Your task to perform on an android device: Open Google Image 0: 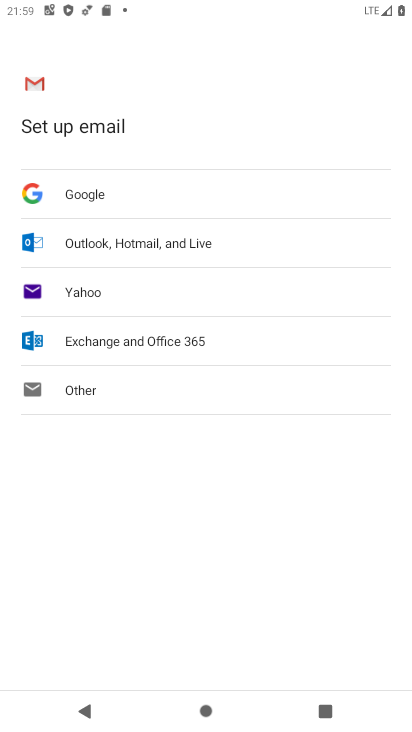
Step 0: press back button
Your task to perform on an android device: Open Google Image 1: 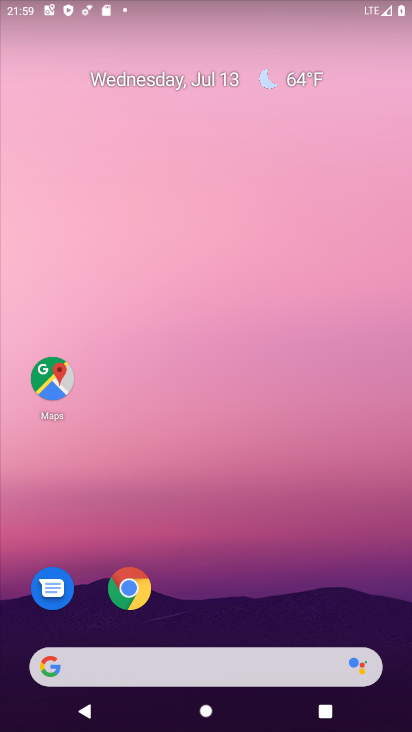
Step 1: drag from (241, 584) to (325, 13)
Your task to perform on an android device: Open Google Image 2: 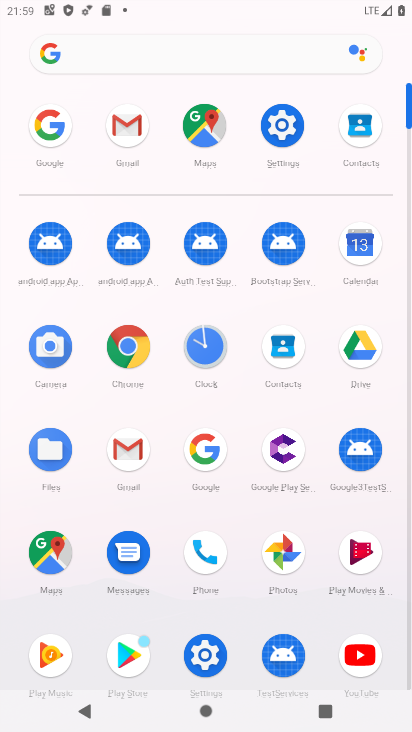
Step 2: click (202, 457)
Your task to perform on an android device: Open Google Image 3: 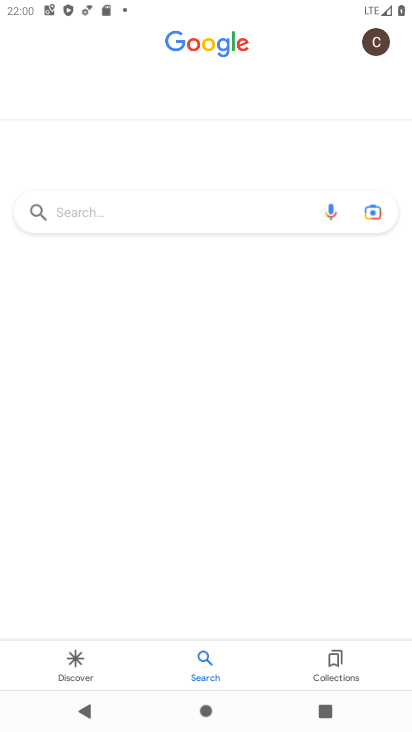
Step 3: task complete